Your task to perform on an android device: Go to settings Image 0: 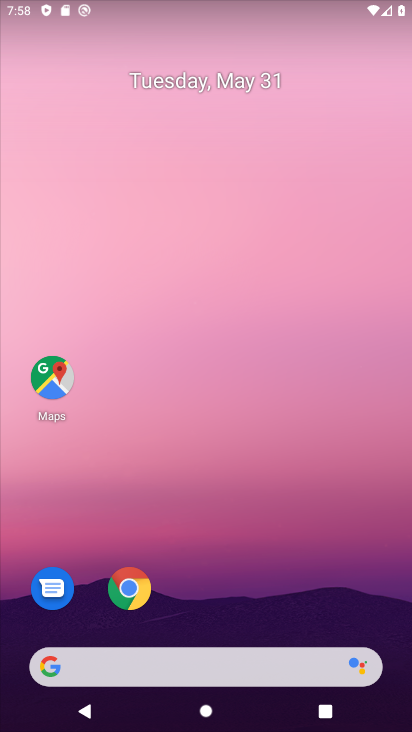
Step 0: drag from (255, 312) to (234, 65)
Your task to perform on an android device: Go to settings Image 1: 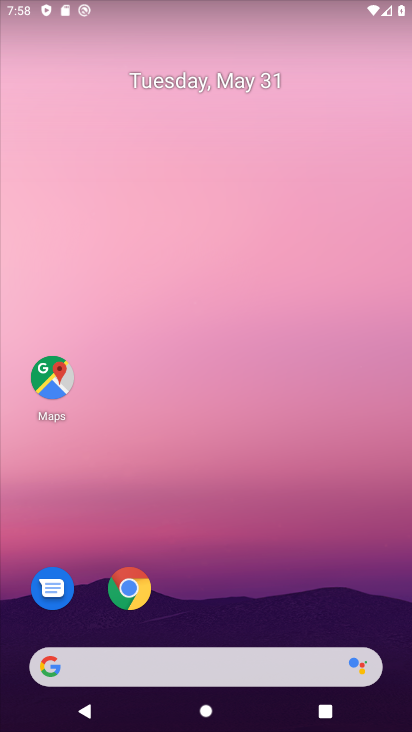
Step 1: drag from (340, 605) to (262, 76)
Your task to perform on an android device: Go to settings Image 2: 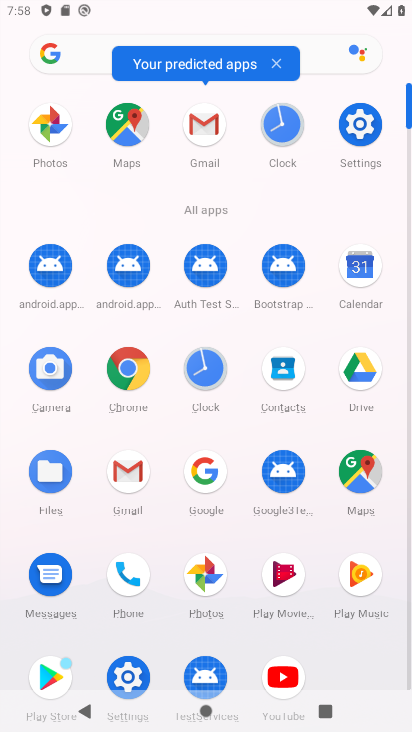
Step 2: click (353, 117)
Your task to perform on an android device: Go to settings Image 3: 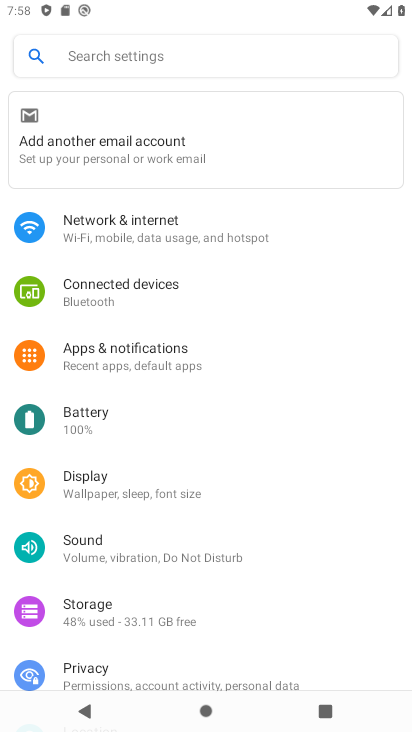
Step 3: task complete